Your task to perform on an android device: Open my contact list Image 0: 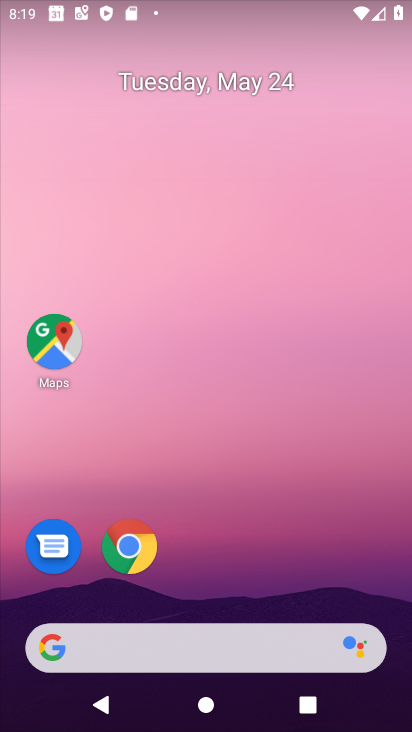
Step 0: drag from (249, 552) to (220, 22)
Your task to perform on an android device: Open my contact list Image 1: 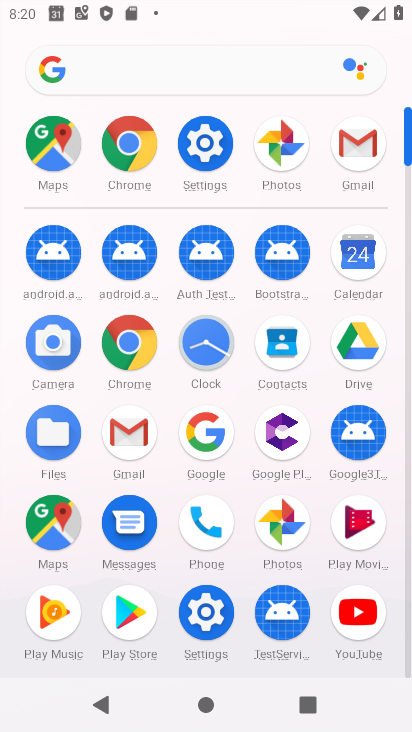
Step 1: click (271, 353)
Your task to perform on an android device: Open my contact list Image 2: 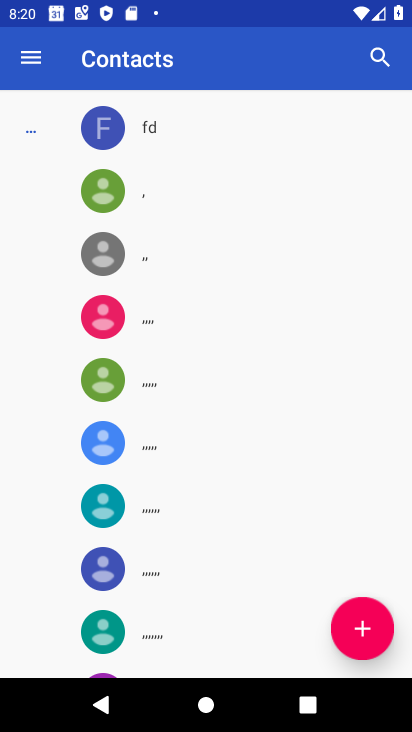
Step 2: task complete